Your task to perform on an android device: Is it going to rain this weekend? Image 0: 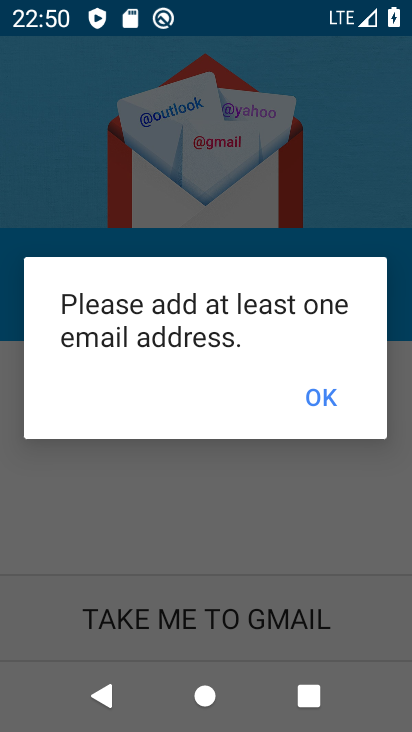
Step 0: drag from (343, 548) to (340, 463)
Your task to perform on an android device: Is it going to rain this weekend? Image 1: 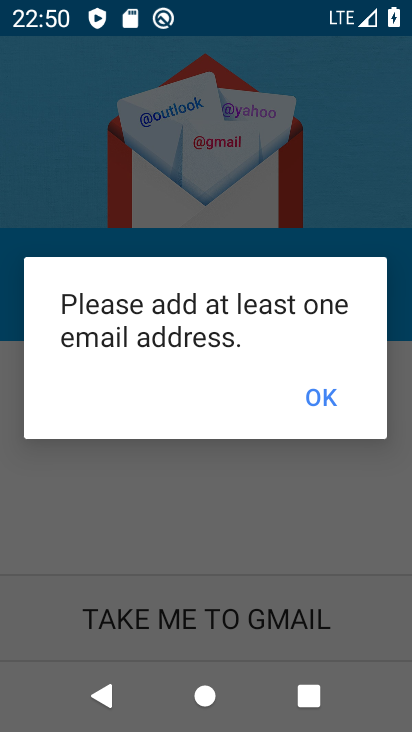
Step 1: press home button
Your task to perform on an android device: Is it going to rain this weekend? Image 2: 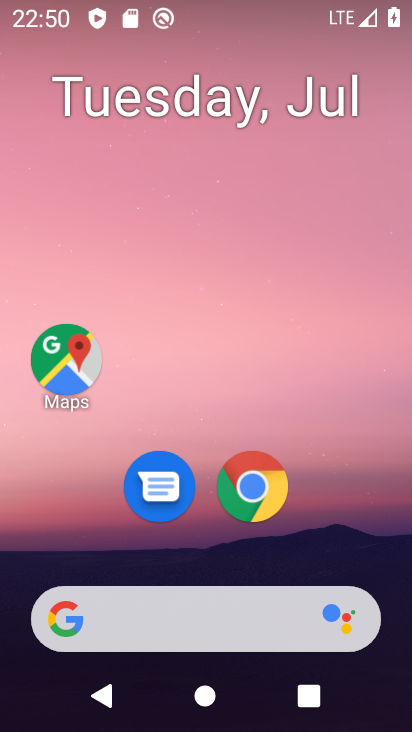
Step 2: click (227, 622)
Your task to perform on an android device: Is it going to rain this weekend? Image 3: 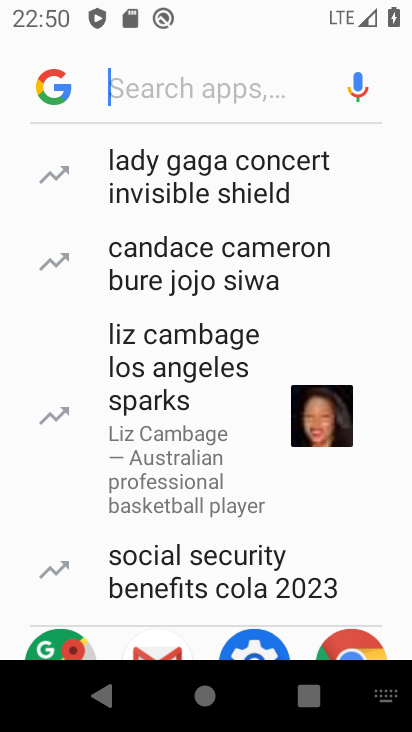
Step 3: type "weather"
Your task to perform on an android device: Is it going to rain this weekend? Image 4: 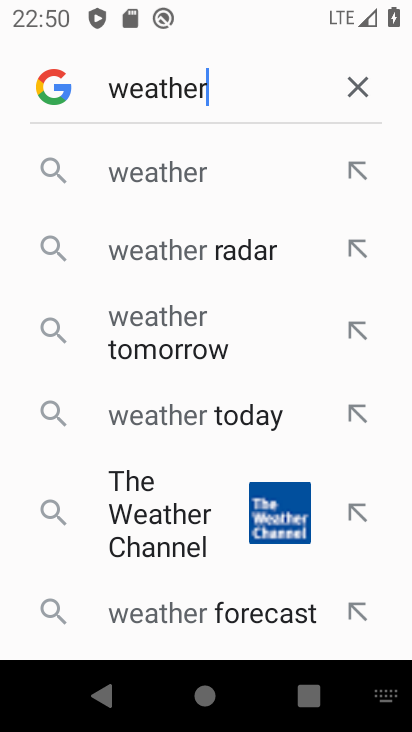
Step 4: click (263, 171)
Your task to perform on an android device: Is it going to rain this weekend? Image 5: 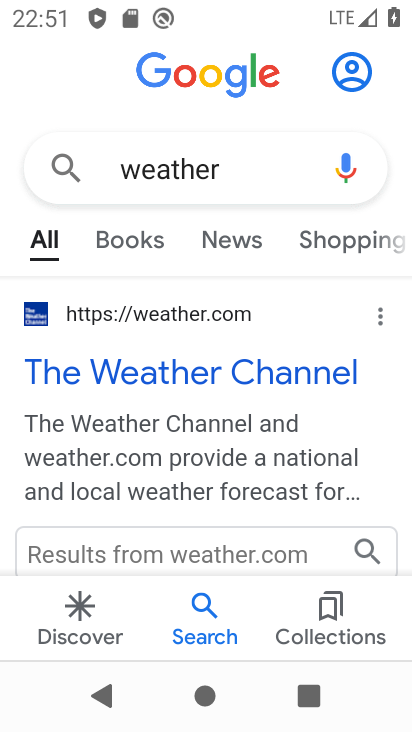
Step 5: task complete